Your task to perform on an android device: Open Youtube and go to the subscriptions tab Image 0: 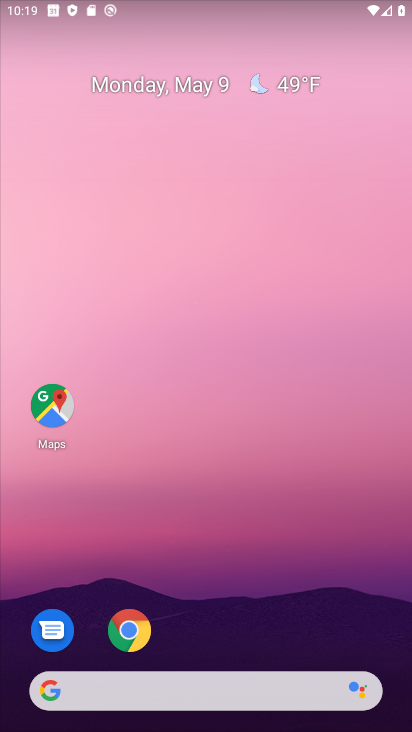
Step 0: drag from (200, 629) to (231, 184)
Your task to perform on an android device: Open Youtube and go to the subscriptions tab Image 1: 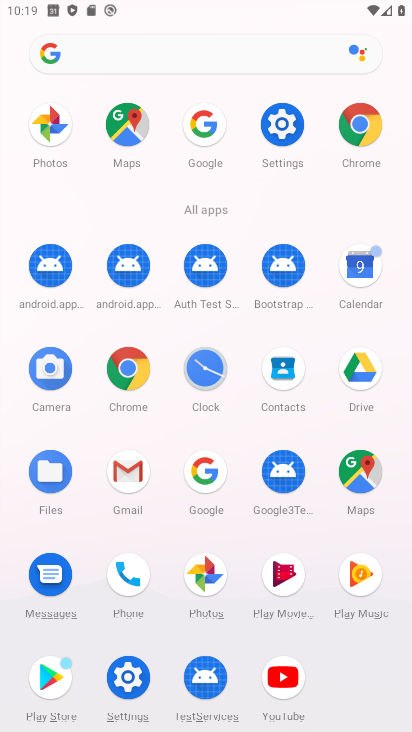
Step 1: click (298, 701)
Your task to perform on an android device: Open Youtube and go to the subscriptions tab Image 2: 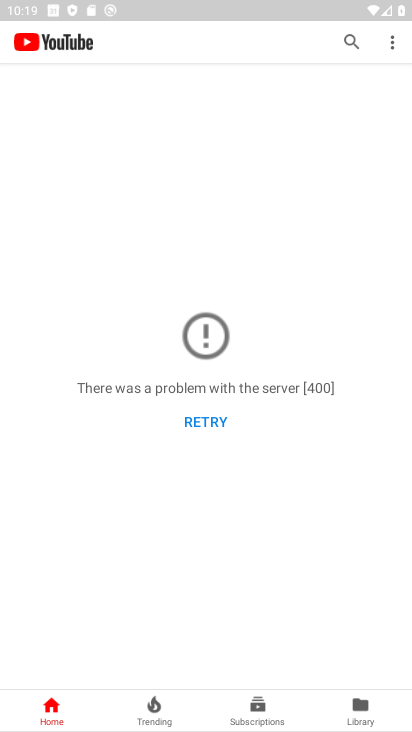
Step 2: click (254, 705)
Your task to perform on an android device: Open Youtube and go to the subscriptions tab Image 3: 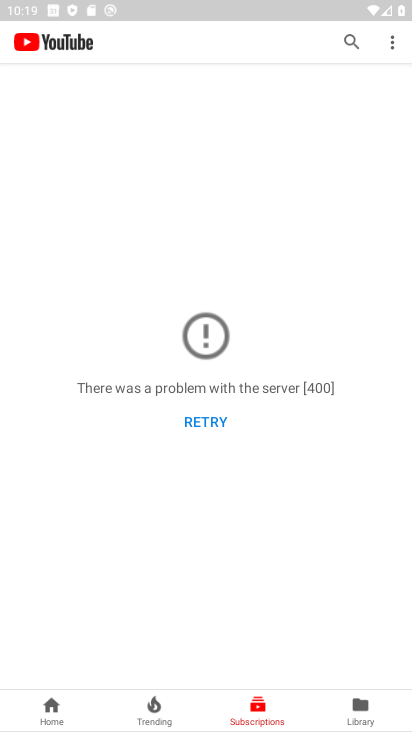
Step 3: task complete